Your task to perform on an android device: turn off sleep mode Image 0: 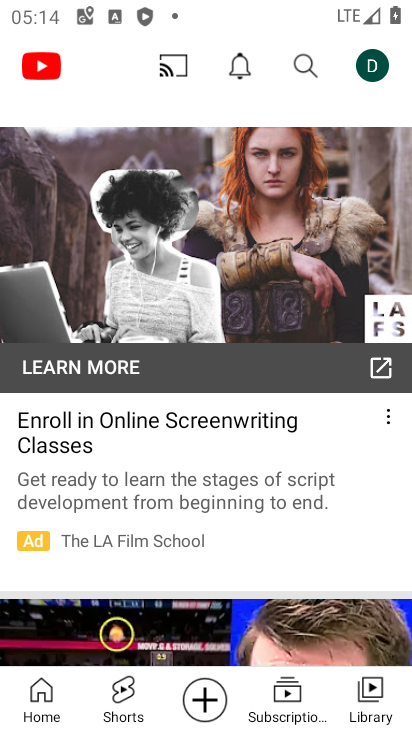
Step 0: press home button
Your task to perform on an android device: turn off sleep mode Image 1: 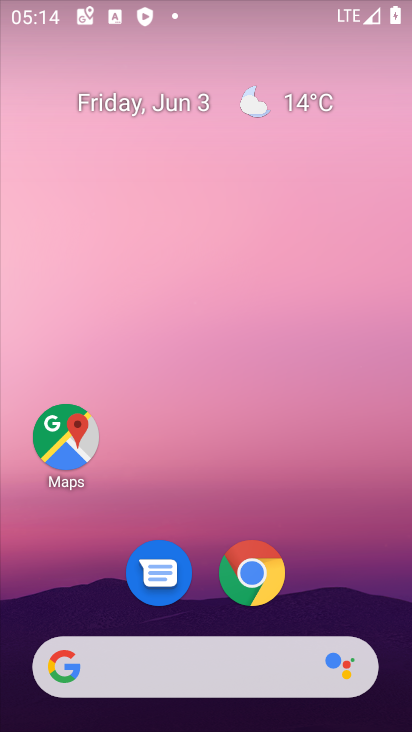
Step 1: drag from (346, 582) to (251, 135)
Your task to perform on an android device: turn off sleep mode Image 2: 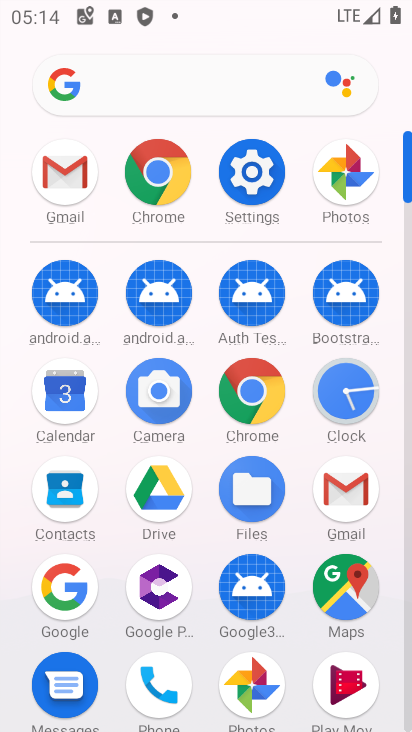
Step 2: click (263, 198)
Your task to perform on an android device: turn off sleep mode Image 3: 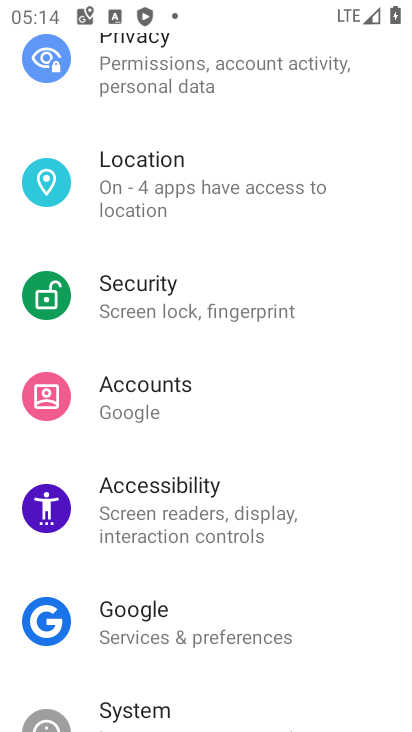
Step 3: drag from (223, 99) to (220, 619)
Your task to perform on an android device: turn off sleep mode Image 4: 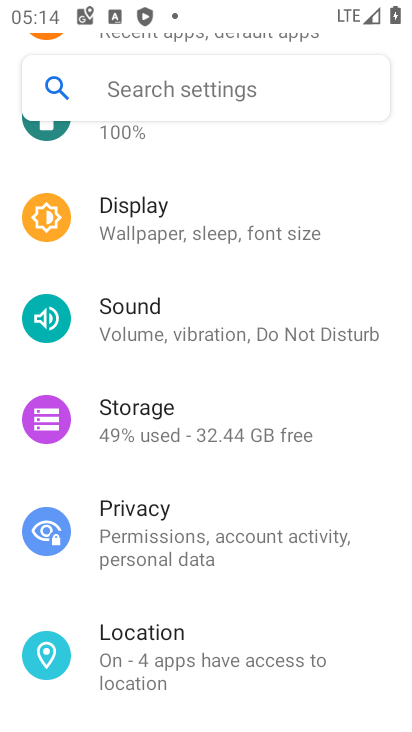
Step 4: click (240, 232)
Your task to perform on an android device: turn off sleep mode Image 5: 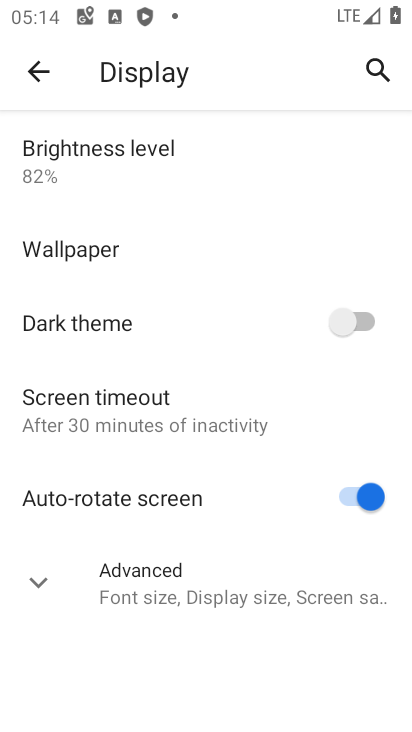
Step 5: click (65, 568)
Your task to perform on an android device: turn off sleep mode Image 6: 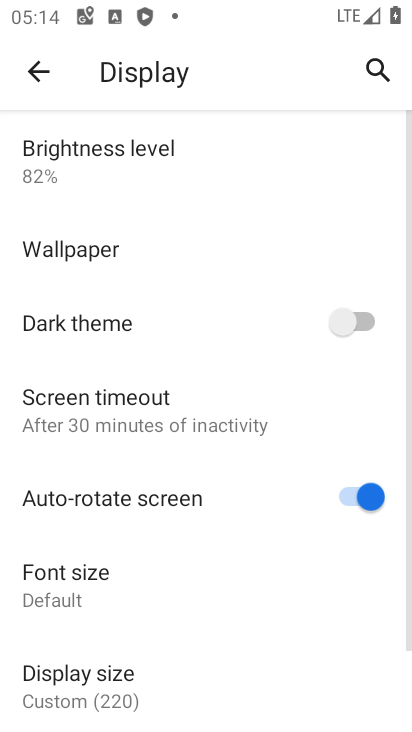
Step 6: drag from (276, 636) to (294, 337)
Your task to perform on an android device: turn off sleep mode Image 7: 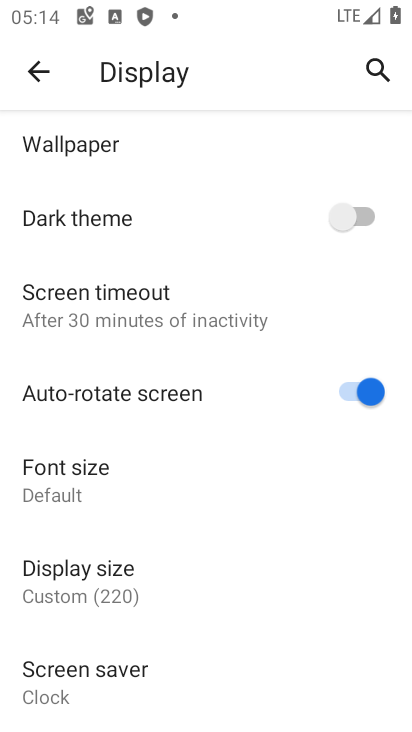
Step 7: click (241, 313)
Your task to perform on an android device: turn off sleep mode Image 8: 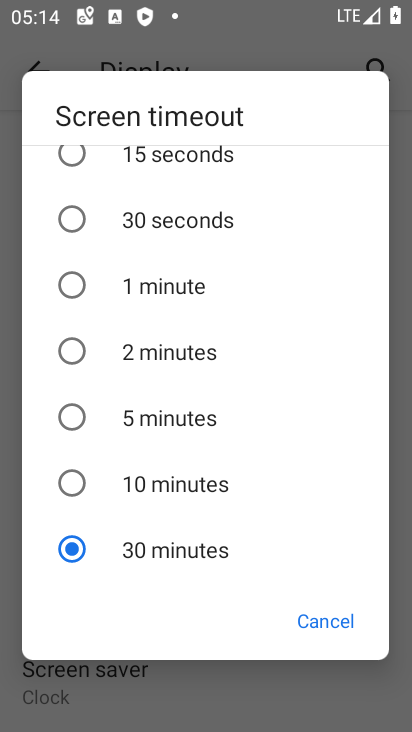
Step 8: click (340, 624)
Your task to perform on an android device: turn off sleep mode Image 9: 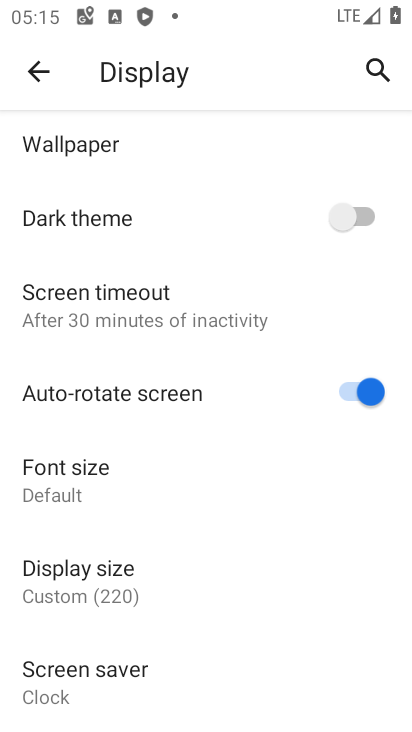
Step 9: task complete